Your task to perform on an android device: empty trash in the gmail app Image 0: 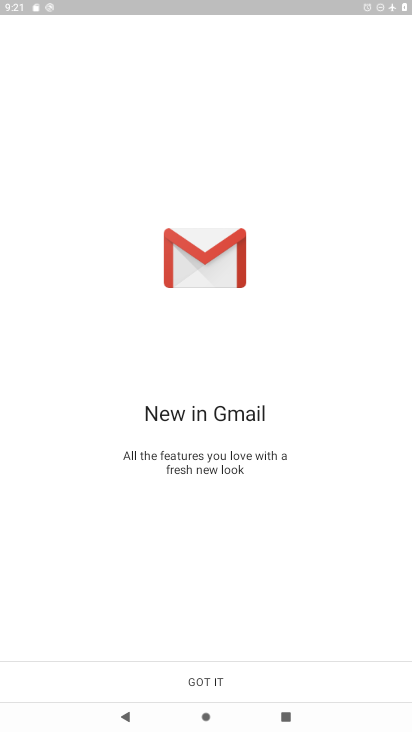
Step 0: press home button
Your task to perform on an android device: empty trash in the gmail app Image 1: 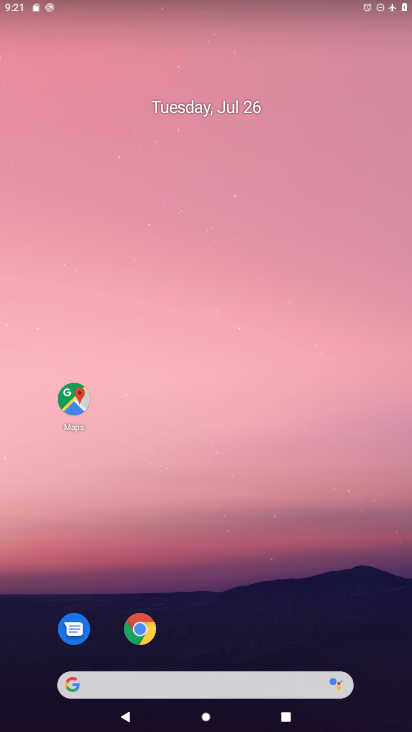
Step 1: drag from (181, 650) to (132, 53)
Your task to perform on an android device: empty trash in the gmail app Image 2: 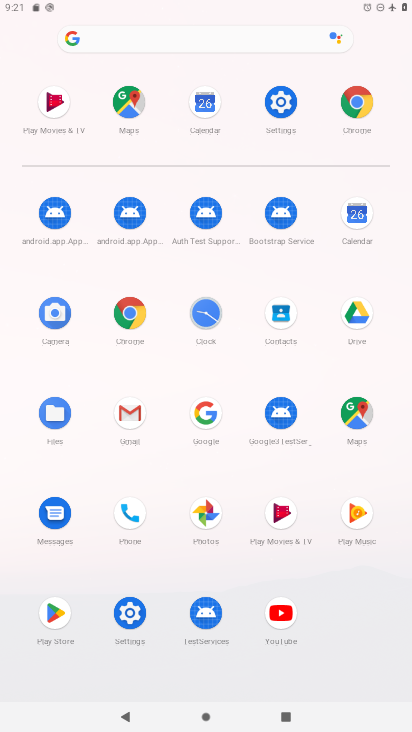
Step 2: click (126, 438)
Your task to perform on an android device: empty trash in the gmail app Image 3: 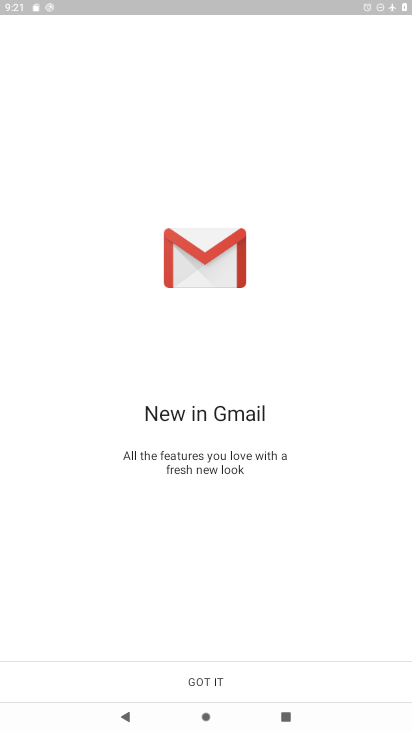
Step 3: click (216, 669)
Your task to perform on an android device: empty trash in the gmail app Image 4: 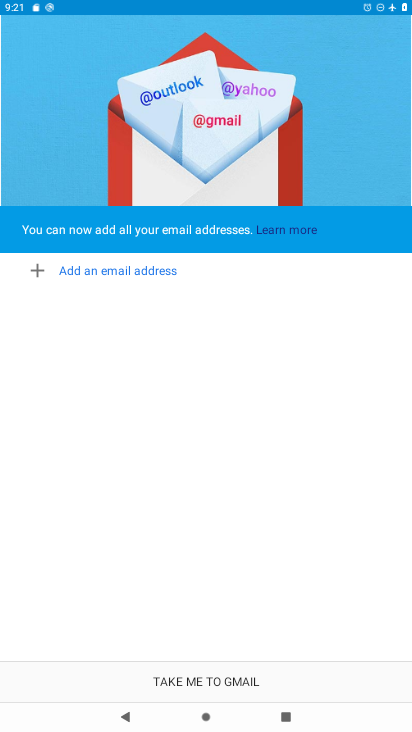
Step 4: click (201, 687)
Your task to perform on an android device: empty trash in the gmail app Image 5: 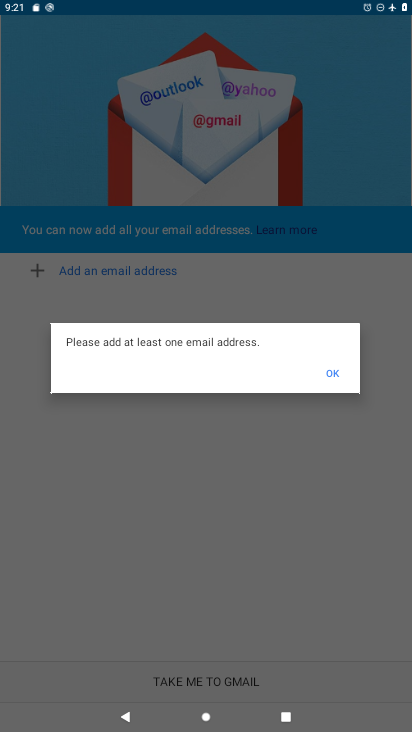
Step 5: task complete